Your task to perform on an android device: toggle airplane mode Image 0: 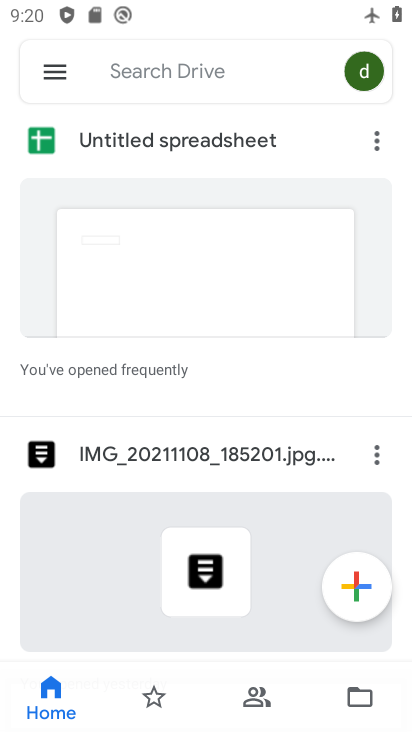
Step 0: press home button
Your task to perform on an android device: toggle airplane mode Image 1: 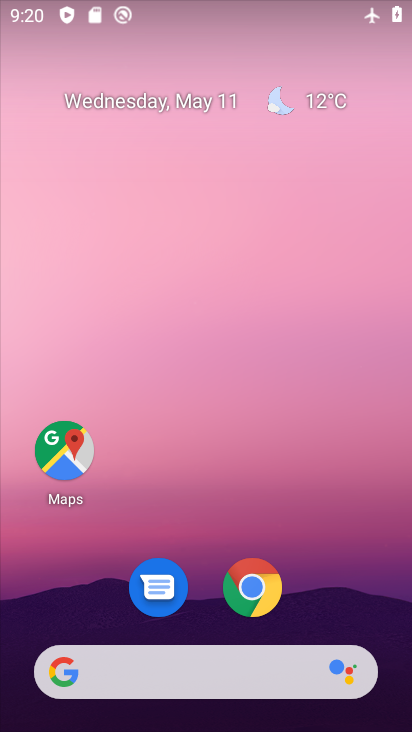
Step 1: drag from (360, 624) to (374, 9)
Your task to perform on an android device: toggle airplane mode Image 2: 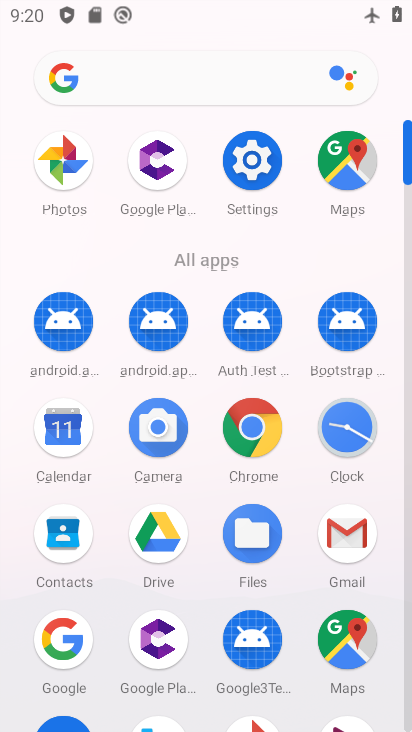
Step 2: click (242, 159)
Your task to perform on an android device: toggle airplane mode Image 3: 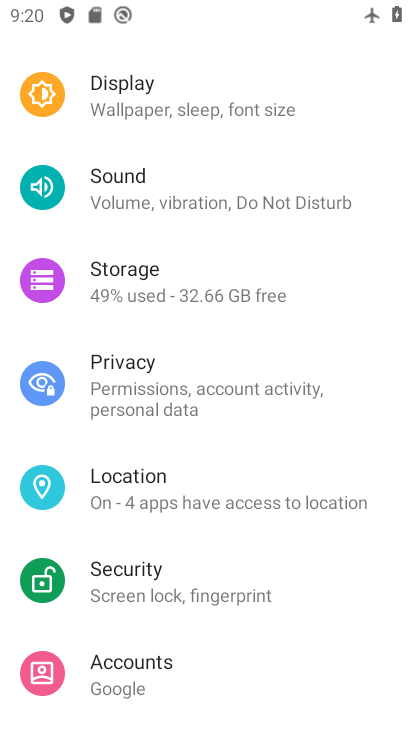
Step 3: drag from (359, 279) to (353, 535)
Your task to perform on an android device: toggle airplane mode Image 4: 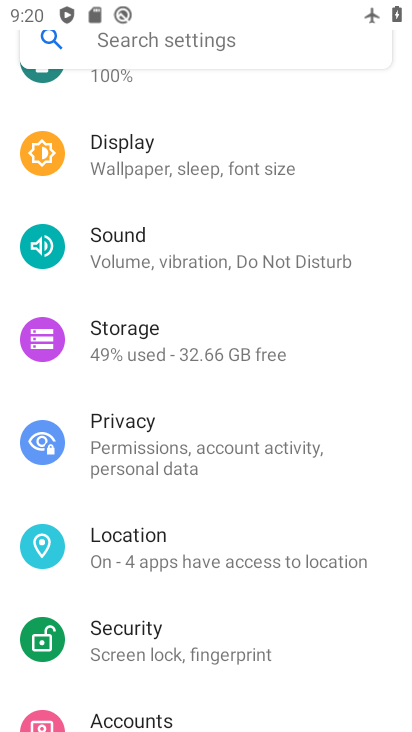
Step 4: drag from (326, 238) to (333, 560)
Your task to perform on an android device: toggle airplane mode Image 5: 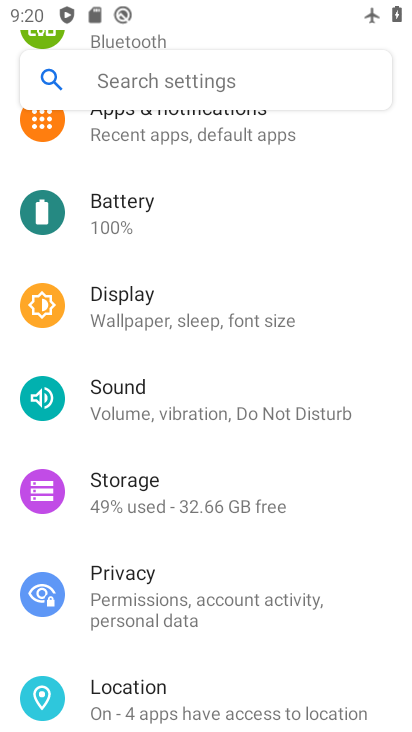
Step 5: drag from (274, 339) to (267, 534)
Your task to perform on an android device: toggle airplane mode Image 6: 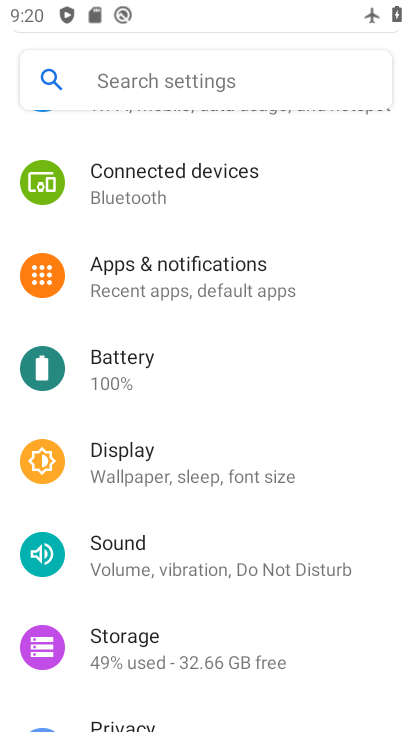
Step 6: drag from (316, 221) to (326, 566)
Your task to perform on an android device: toggle airplane mode Image 7: 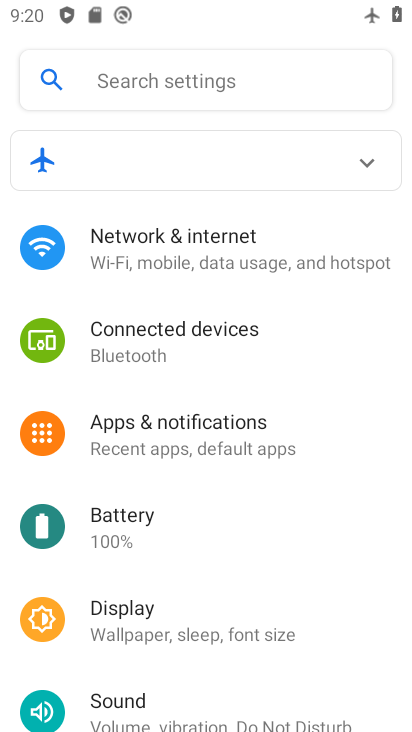
Step 7: click (172, 256)
Your task to perform on an android device: toggle airplane mode Image 8: 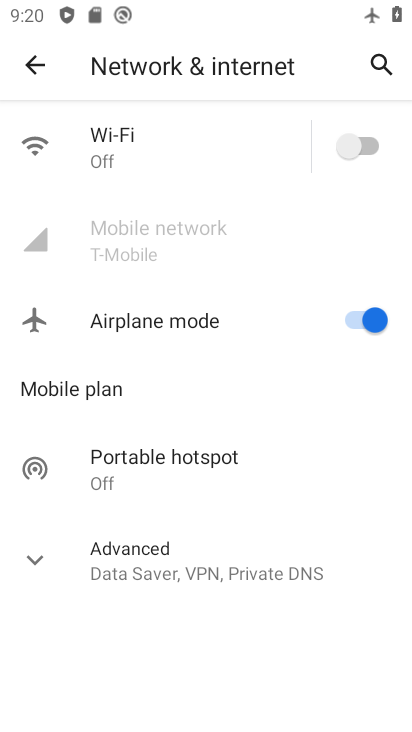
Step 8: click (355, 322)
Your task to perform on an android device: toggle airplane mode Image 9: 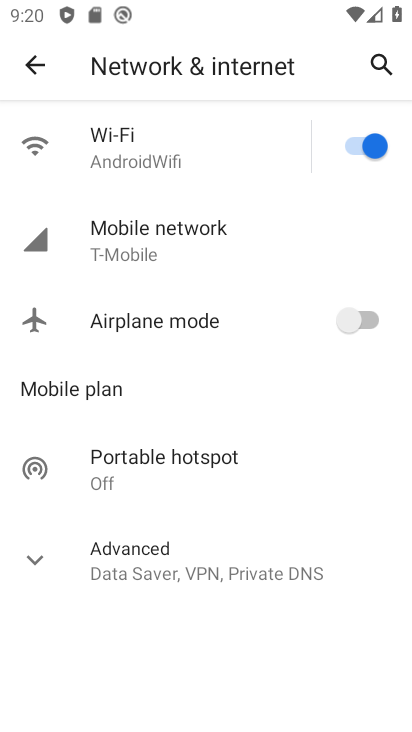
Step 9: task complete